Your task to perform on an android device: change alarm snooze length Image 0: 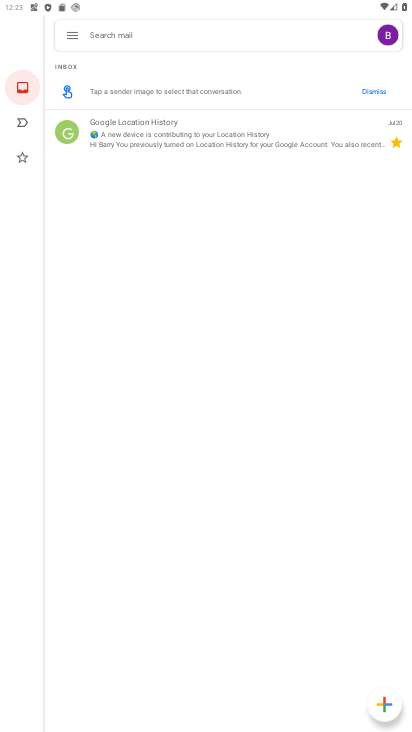
Step 0: press home button
Your task to perform on an android device: change alarm snooze length Image 1: 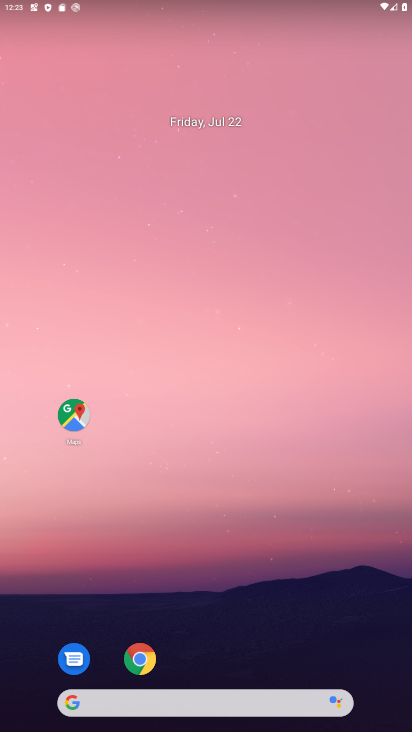
Step 1: drag from (178, 383) to (178, 322)
Your task to perform on an android device: change alarm snooze length Image 2: 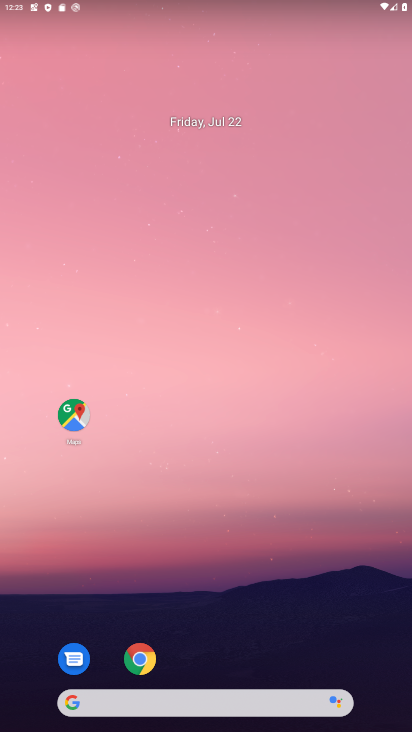
Step 2: drag from (208, 513) to (214, 57)
Your task to perform on an android device: change alarm snooze length Image 3: 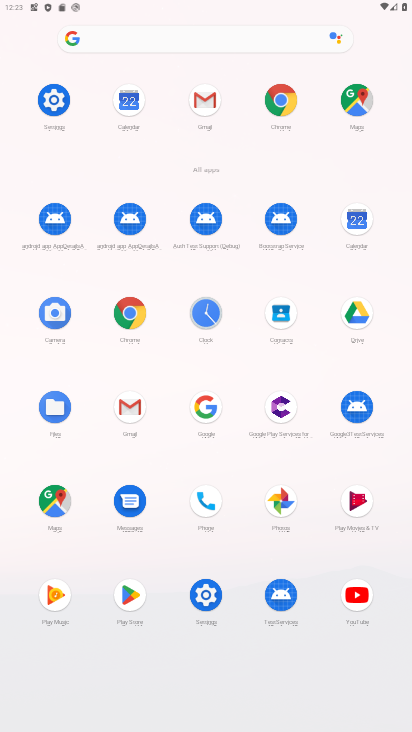
Step 3: click (56, 111)
Your task to perform on an android device: change alarm snooze length Image 4: 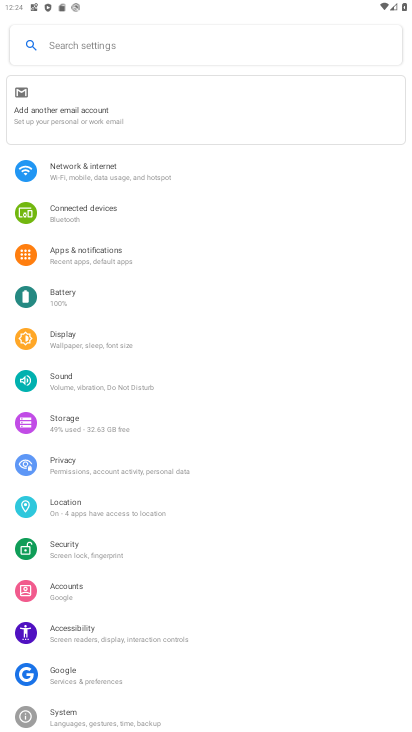
Step 4: press back button
Your task to perform on an android device: change alarm snooze length Image 5: 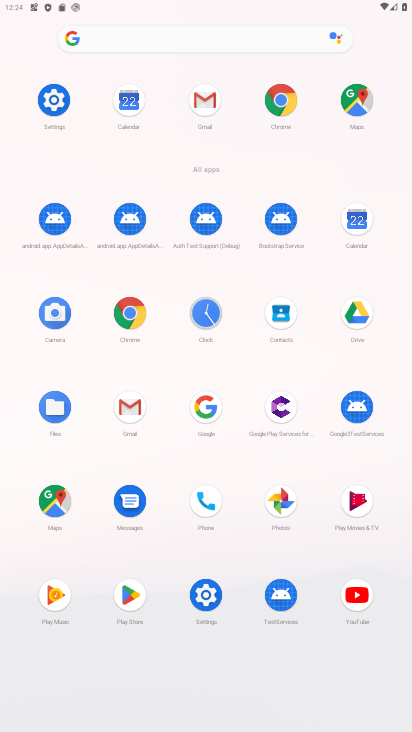
Step 5: click (207, 316)
Your task to perform on an android device: change alarm snooze length Image 6: 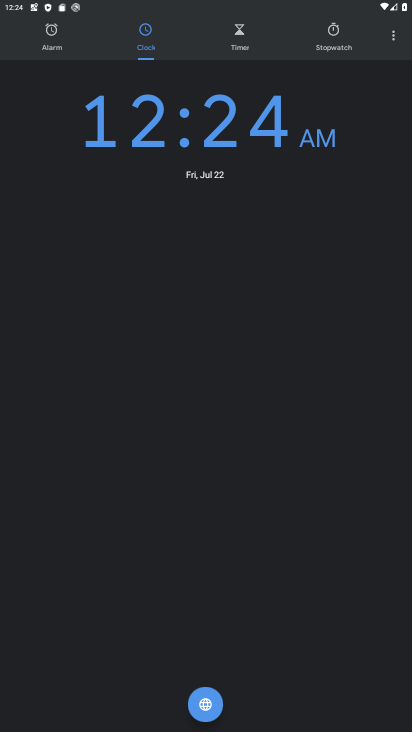
Step 6: click (396, 39)
Your task to perform on an android device: change alarm snooze length Image 7: 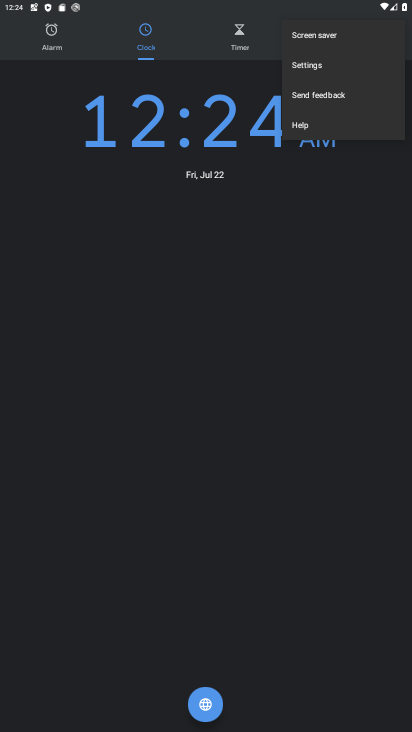
Step 7: click (335, 66)
Your task to perform on an android device: change alarm snooze length Image 8: 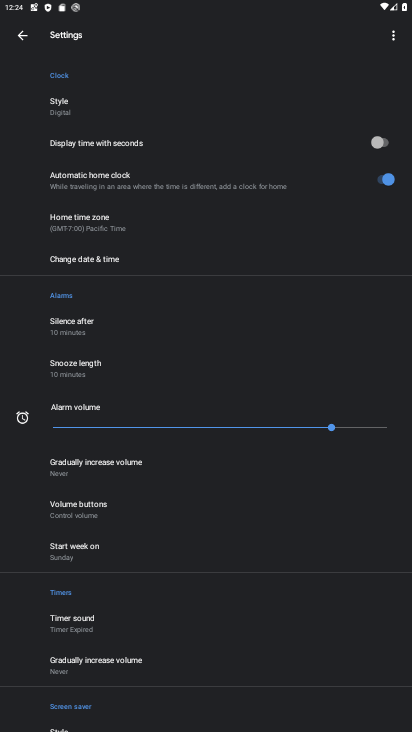
Step 8: click (69, 369)
Your task to perform on an android device: change alarm snooze length Image 9: 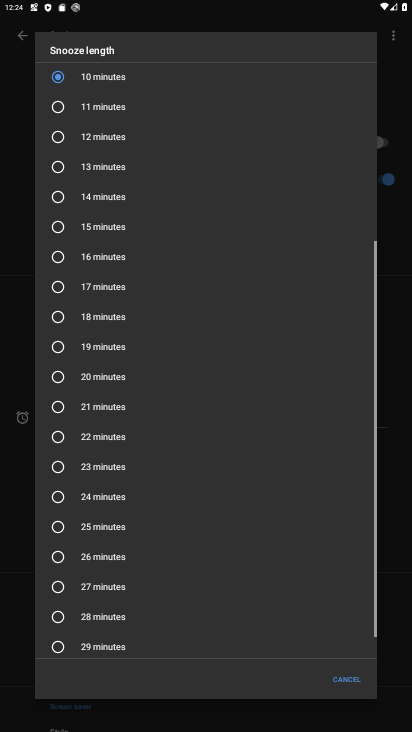
Step 9: click (69, 369)
Your task to perform on an android device: change alarm snooze length Image 10: 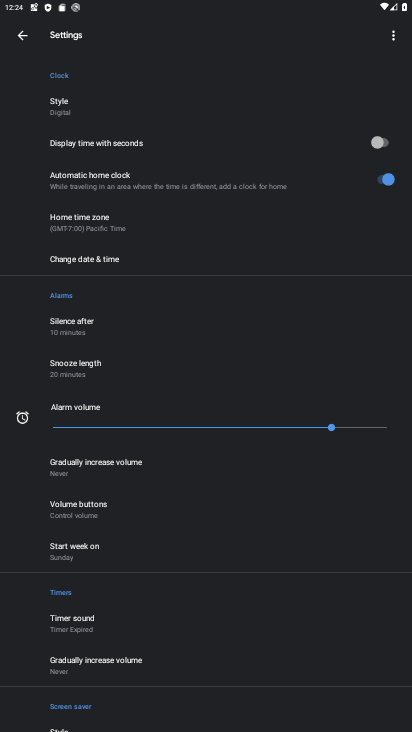
Step 10: task complete